Your task to perform on an android device: toggle airplane mode Image 0: 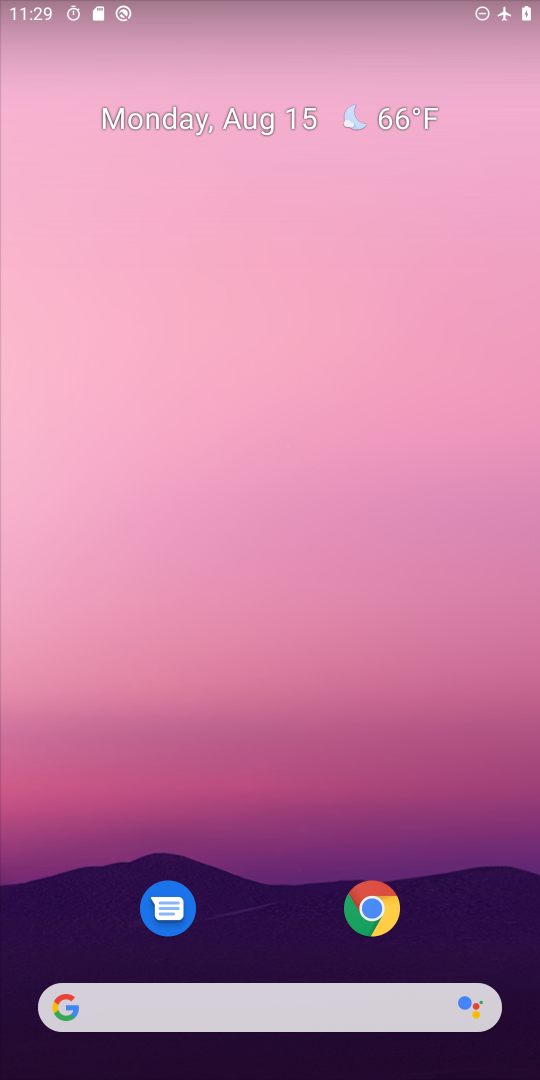
Step 0: drag from (284, 14) to (251, 878)
Your task to perform on an android device: toggle airplane mode Image 1: 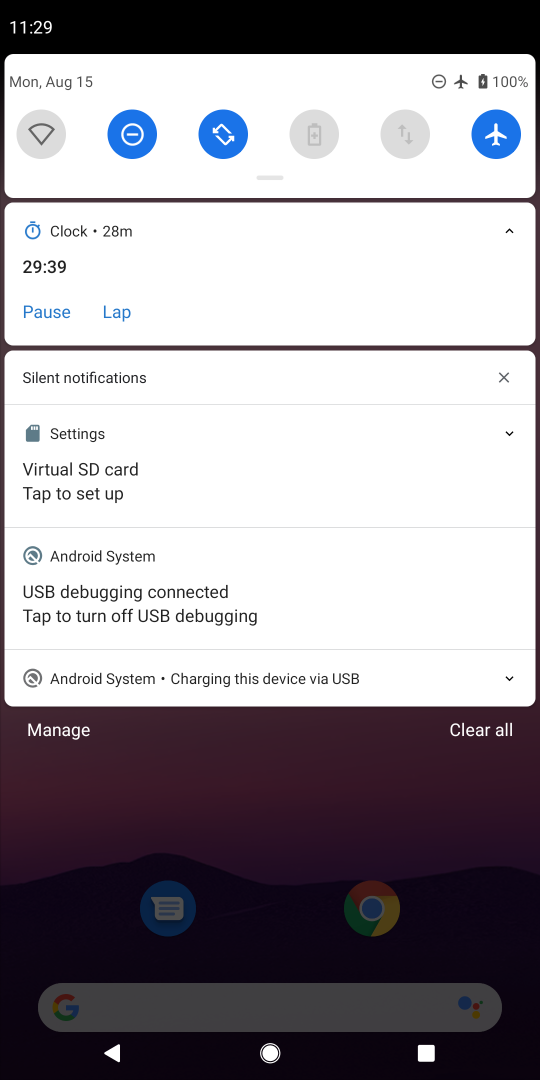
Step 1: click (491, 142)
Your task to perform on an android device: toggle airplane mode Image 2: 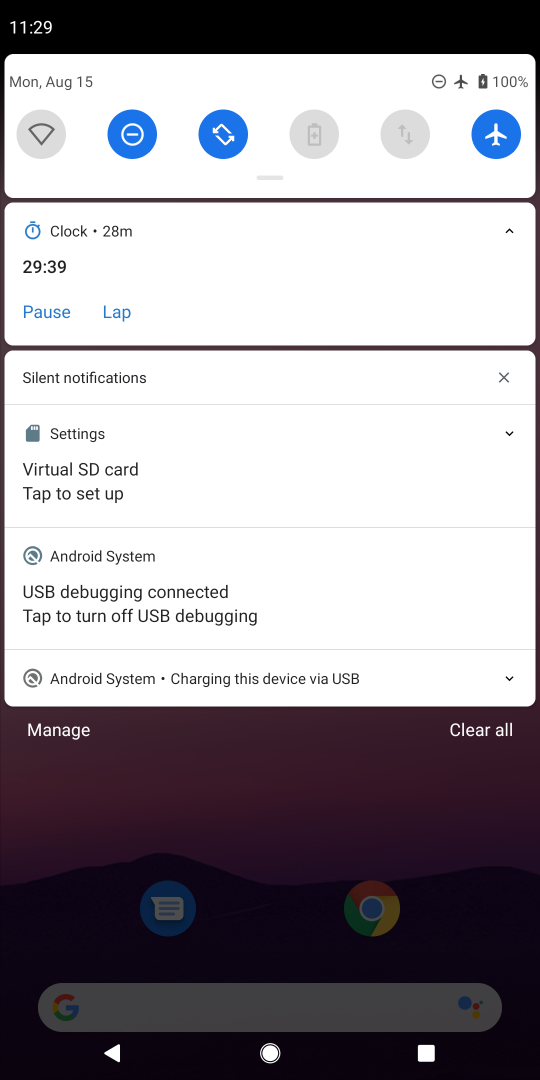
Step 2: click (491, 142)
Your task to perform on an android device: toggle airplane mode Image 3: 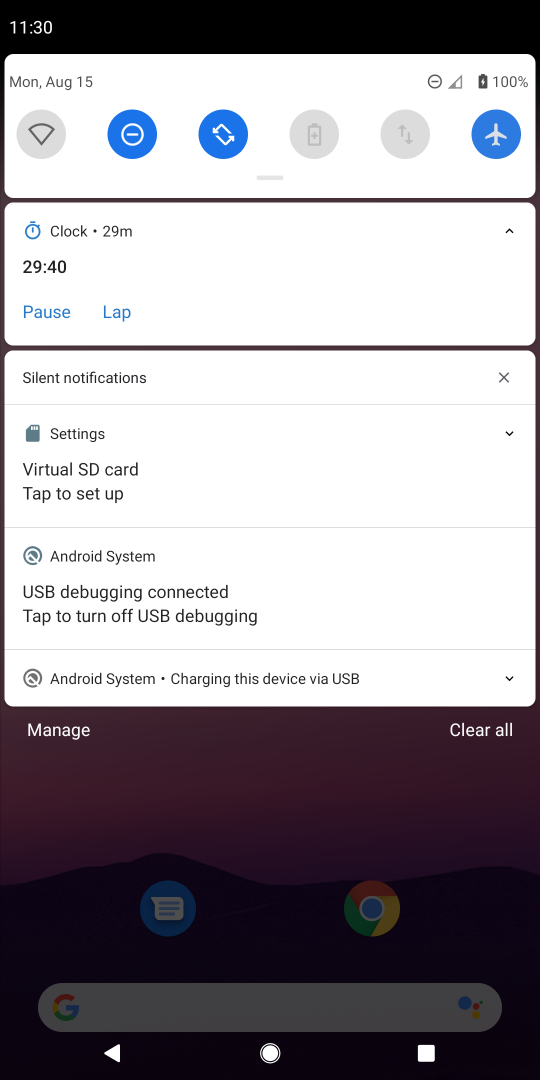
Step 3: click (491, 142)
Your task to perform on an android device: toggle airplane mode Image 4: 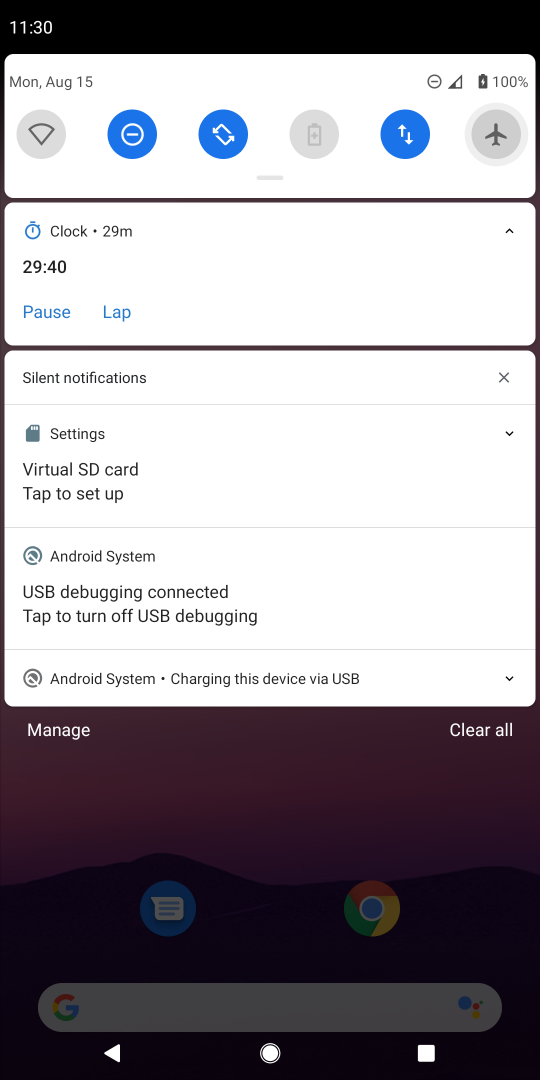
Step 4: click (491, 142)
Your task to perform on an android device: toggle airplane mode Image 5: 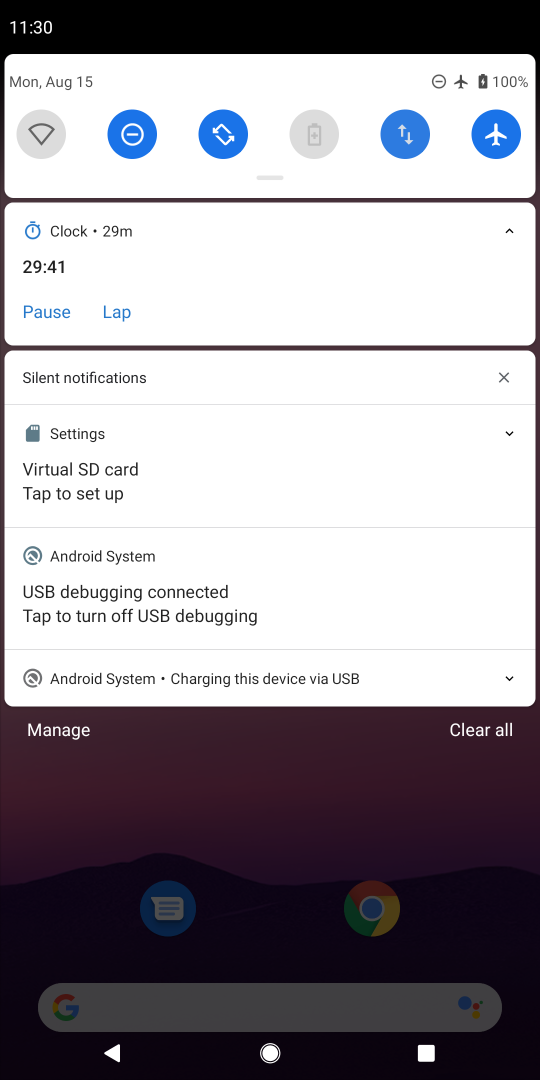
Step 5: click (491, 142)
Your task to perform on an android device: toggle airplane mode Image 6: 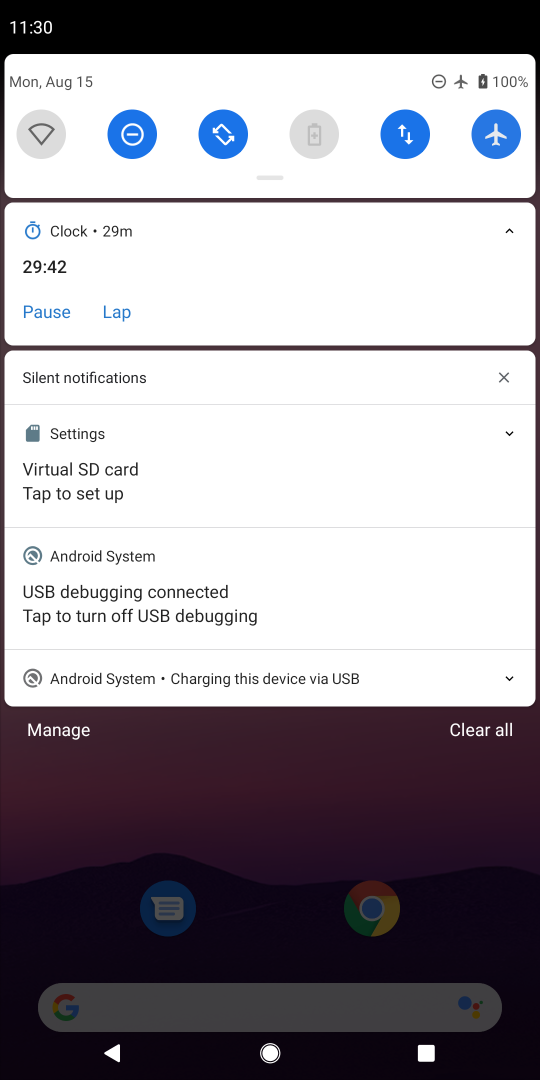
Step 6: click (491, 142)
Your task to perform on an android device: toggle airplane mode Image 7: 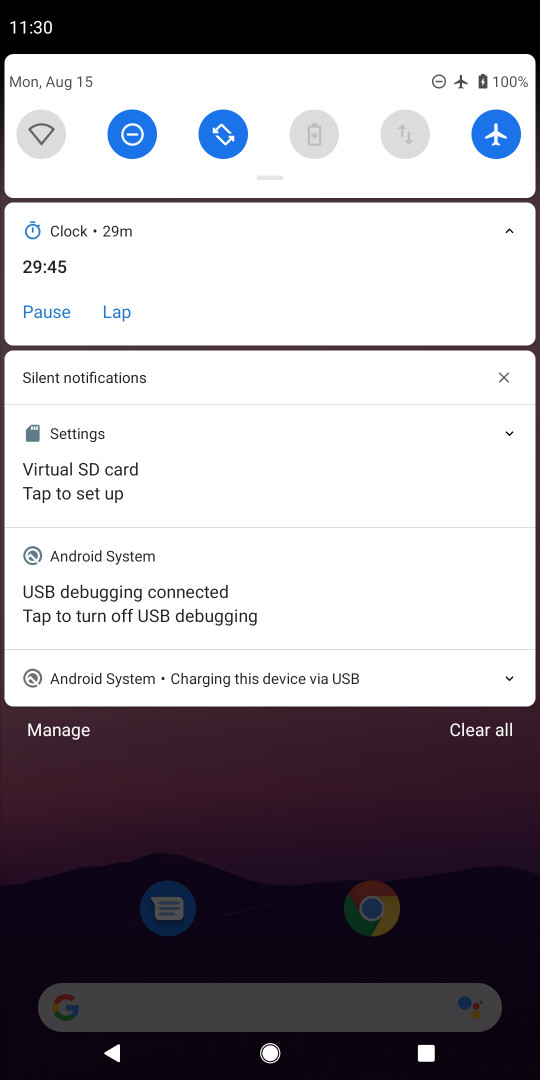
Step 7: task complete